Your task to perform on an android device: Go to accessibility settings Image 0: 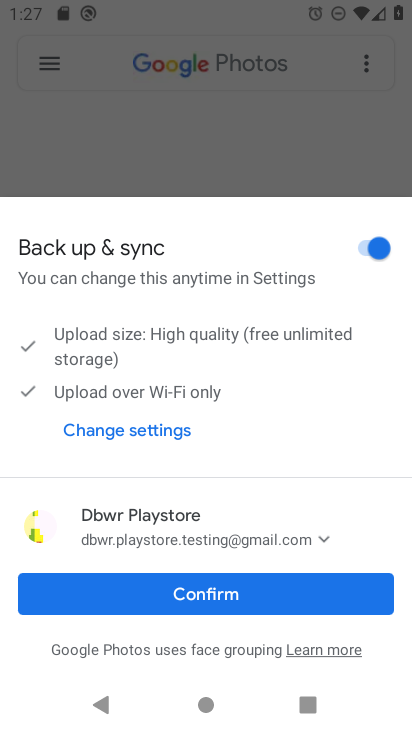
Step 0: click (244, 591)
Your task to perform on an android device: Go to accessibility settings Image 1: 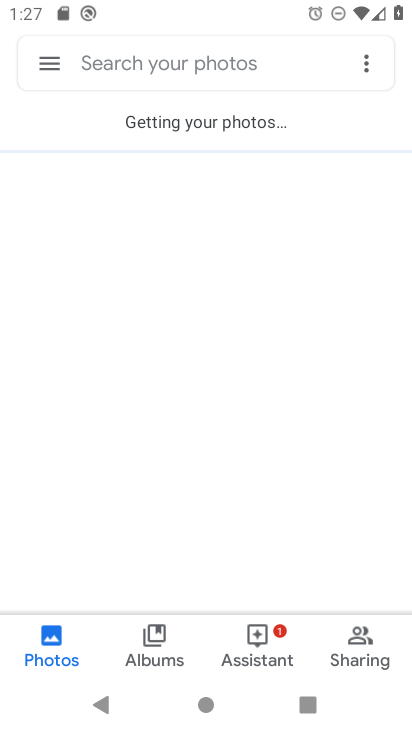
Step 1: click (50, 68)
Your task to perform on an android device: Go to accessibility settings Image 2: 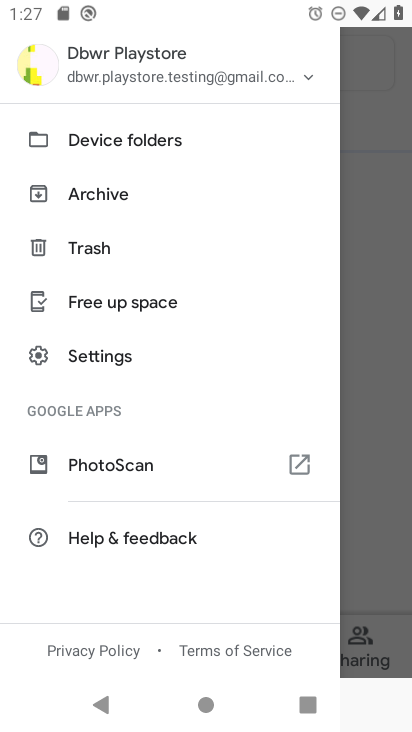
Step 2: press home button
Your task to perform on an android device: Go to accessibility settings Image 3: 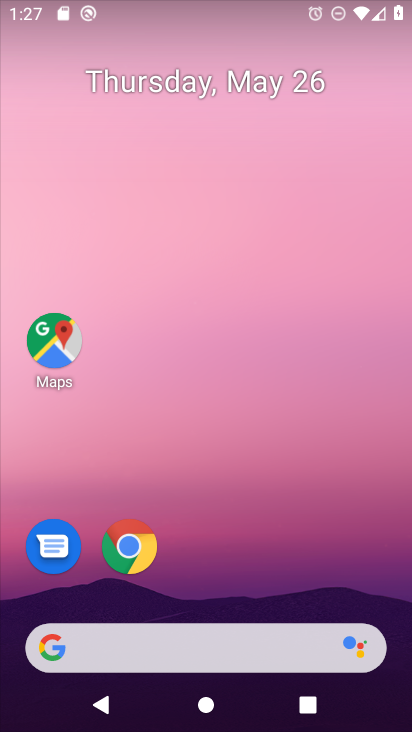
Step 3: drag from (245, 628) to (271, 100)
Your task to perform on an android device: Go to accessibility settings Image 4: 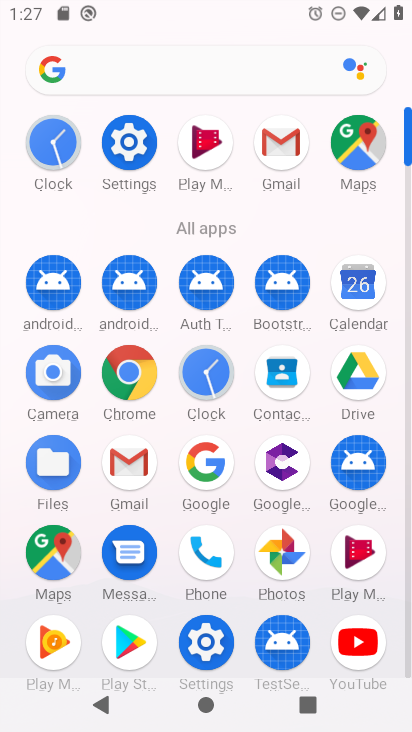
Step 4: click (127, 468)
Your task to perform on an android device: Go to accessibility settings Image 5: 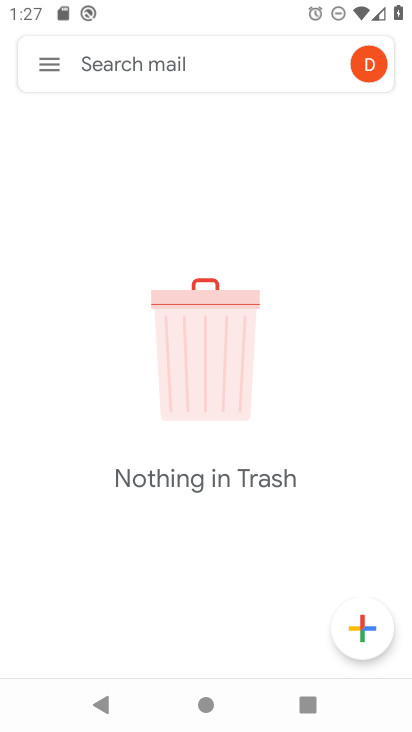
Step 5: press home button
Your task to perform on an android device: Go to accessibility settings Image 6: 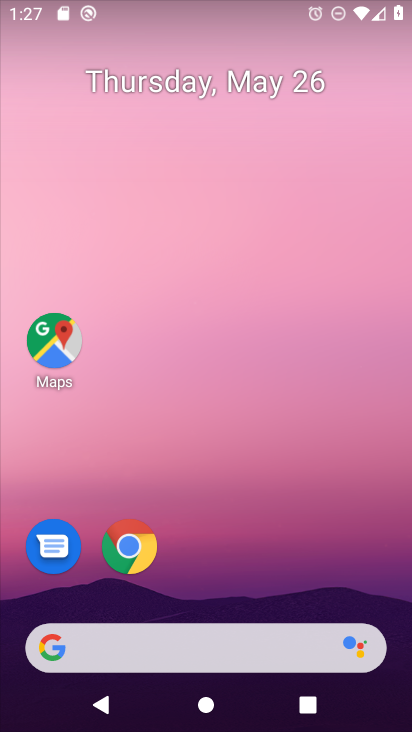
Step 6: drag from (240, 622) to (252, 117)
Your task to perform on an android device: Go to accessibility settings Image 7: 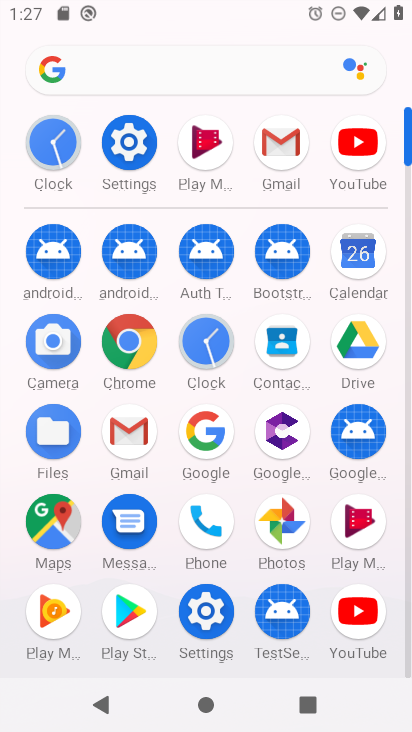
Step 7: click (135, 138)
Your task to perform on an android device: Go to accessibility settings Image 8: 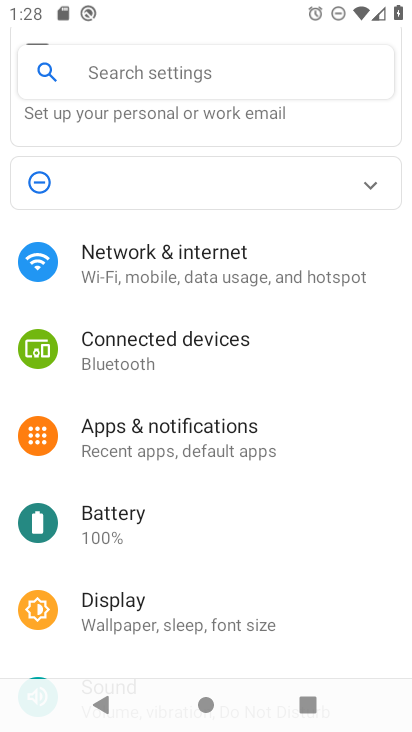
Step 8: drag from (173, 621) to (226, 24)
Your task to perform on an android device: Go to accessibility settings Image 9: 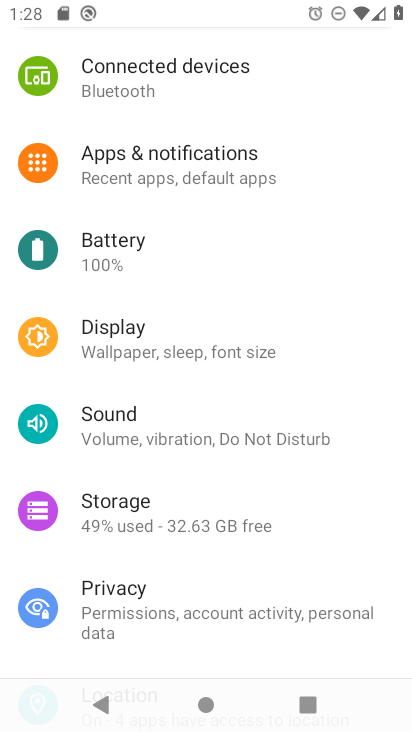
Step 9: drag from (174, 621) to (187, 207)
Your task to perform on an android device: Go to accessibility settings Image 10: 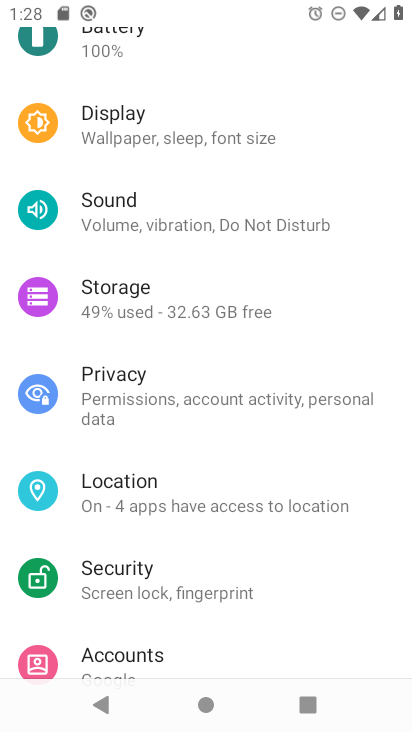
Step 10: drag from (136, 643) to (140, 209)
Your task to perform on an android device: Go to accessibility settings Image 11: 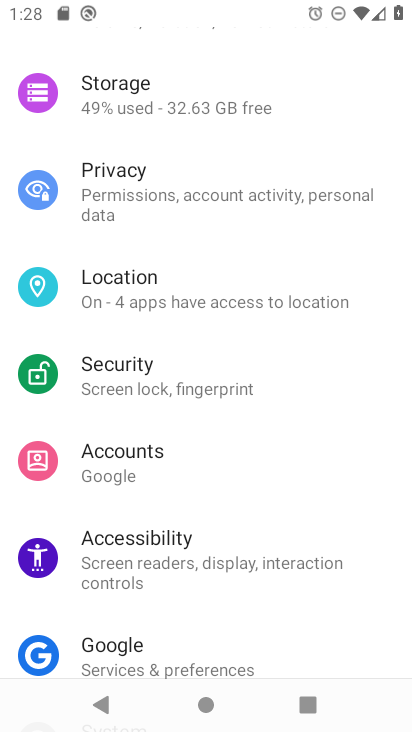
Step 11: click (153, 565)
Your task to perform on an android device: Go to accessibility settings Image 12: 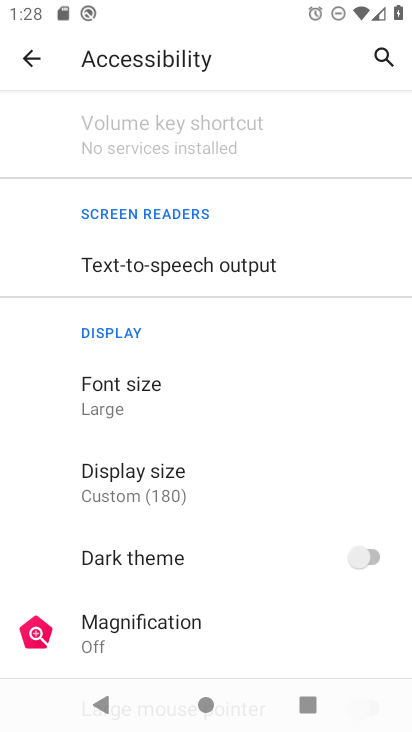
Step 12: task complete